Your task to perform on an android device: Open the calendar and show me this week's events? Image 0: 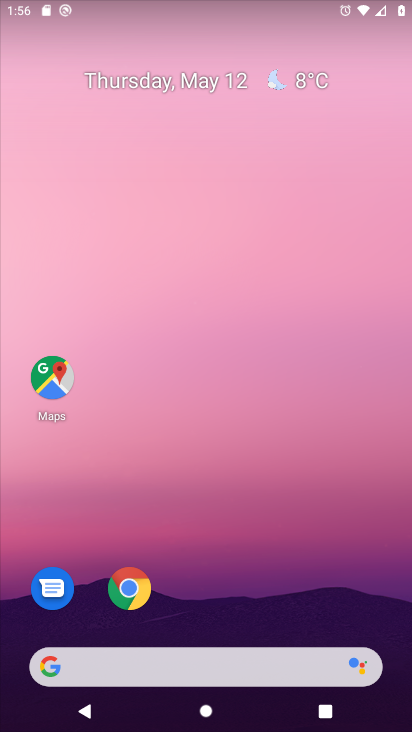
Step 0: drag from (266, 560) to (379, 25)
Your task to perform on an android device: Open the calendar and show me this week's events? Image 1: 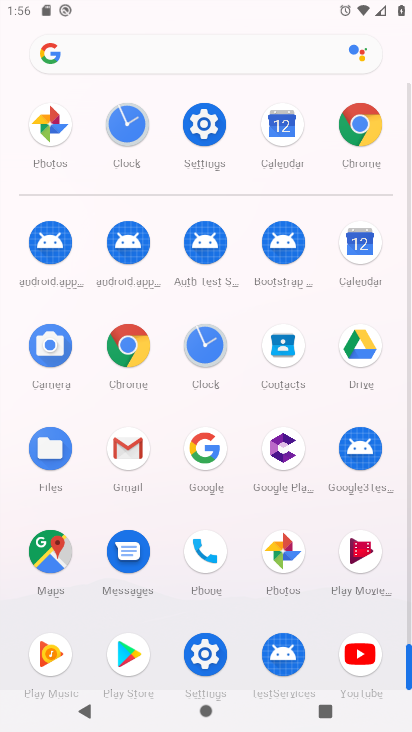
Step 1: click (288, 138)
Your task to perform on an android device: Open the calendar and show me this week's events? Image 2: 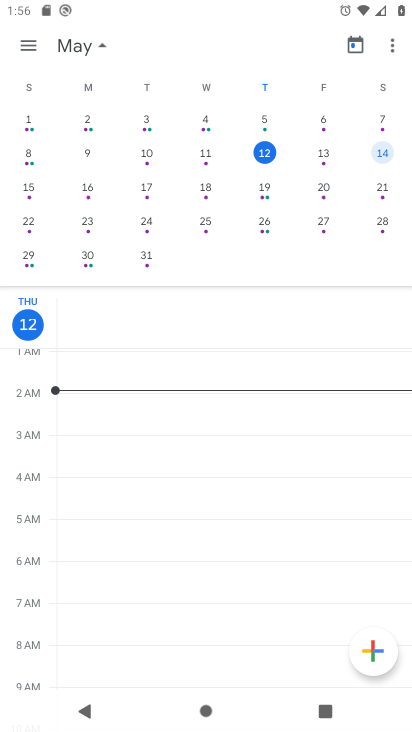
Step 2: click (323, 161)
Your task to perform on an android device: Open the calendar and show me this week's events? Image 3: 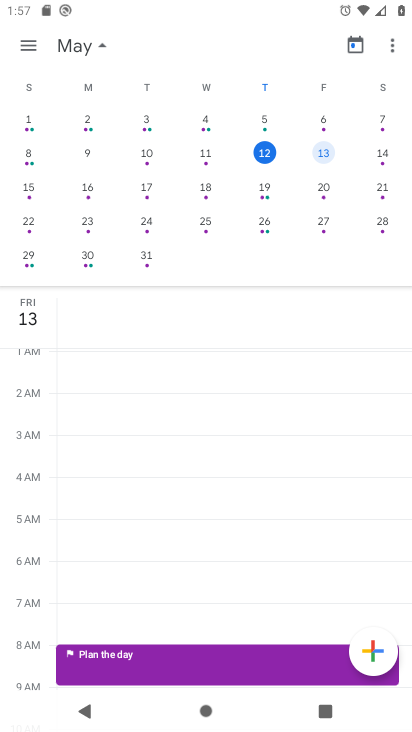
Step 3: task complete